Your task to perform on an android device: check google app version Image 0: 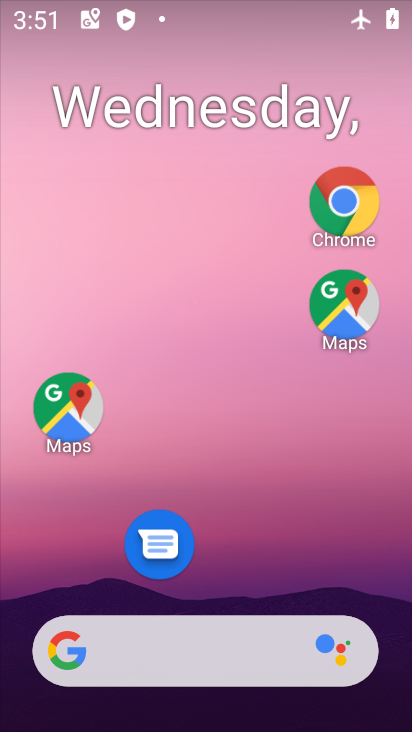
Step 0: drag from (260, 590) to (259, 82)
Your task to perform on an android device: check google app version Image 1: 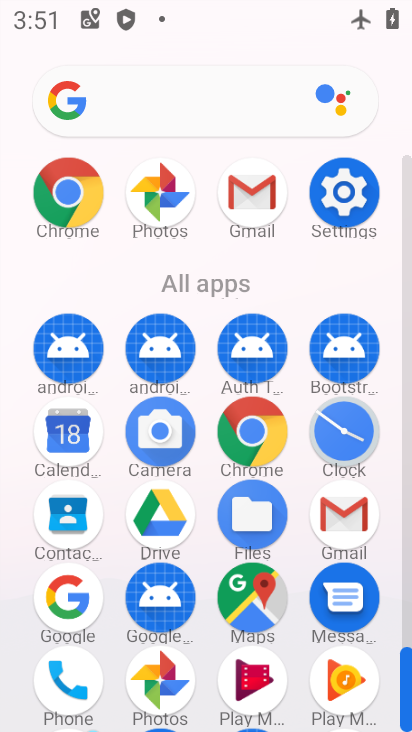
Step 1: click (73, 592)
Your task to perform on an android device: check google app version Image 2: 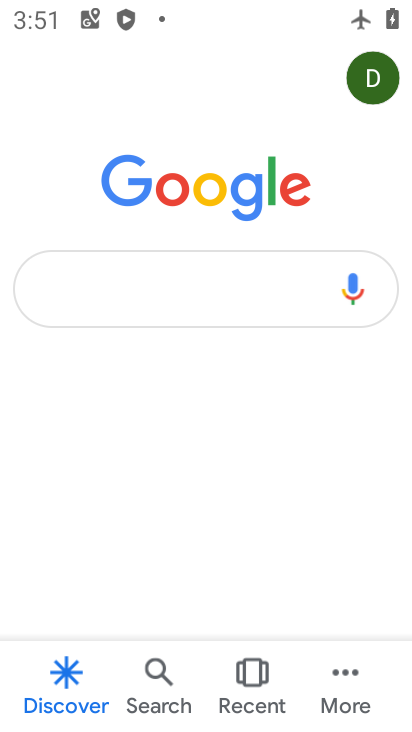
Step 2: click (351, 701)
Your task to perform on an android device: check google app version Image 3: 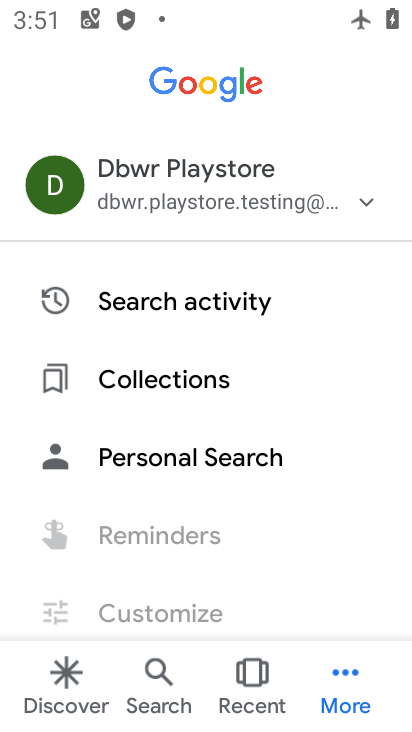
Step 3: drag from (234, 592) to (280, 299)
Your task to perform on an android device: check google app version Image 4: 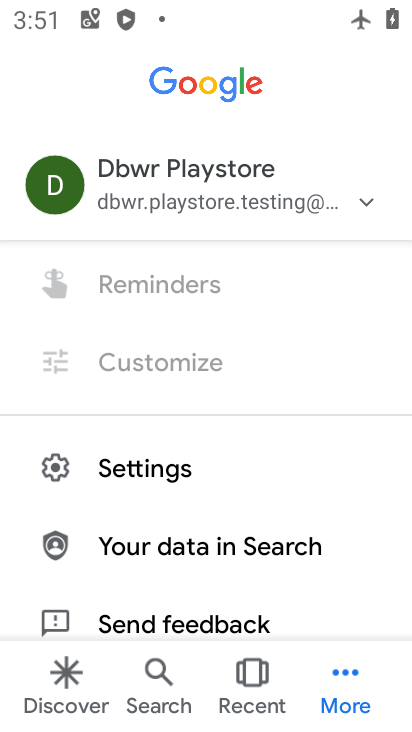
Step 4: drag from (152, 279) to (151, 184)
Your task to perform on an android device: check google app version Image 5: 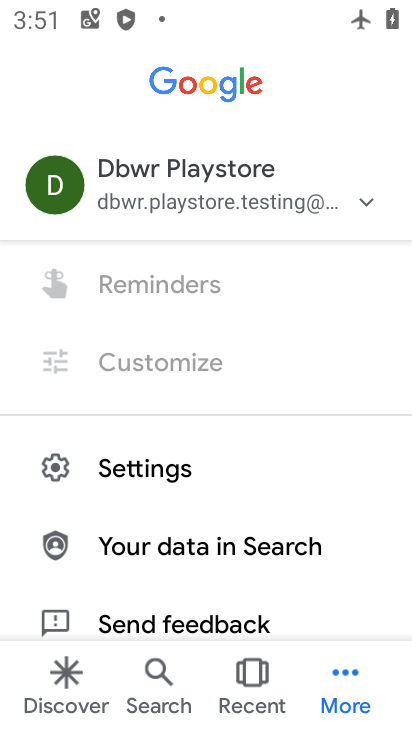
Step 5: click (141, 473)
Your task to perform on an android device: check google app version Image 6: 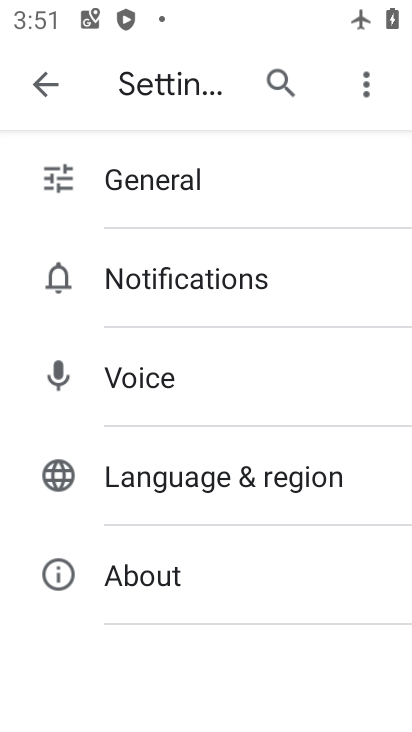
Step 6: click (148, 571)
Your task to perform on an android device: check google app version Image 7: 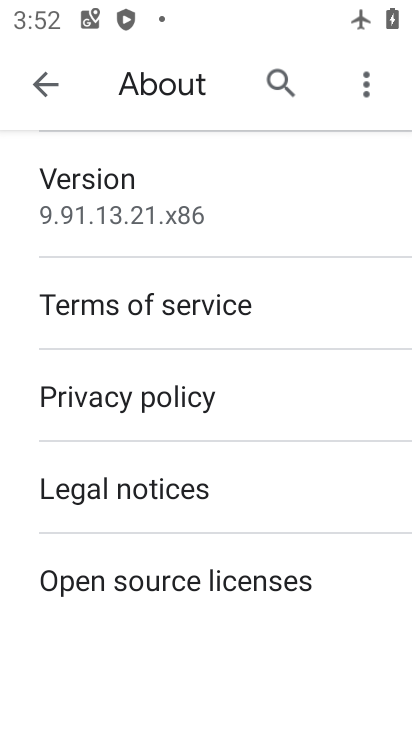
Step 7: task complete